Your task to perform on an android device: find which apps use the phone's location Image 0: 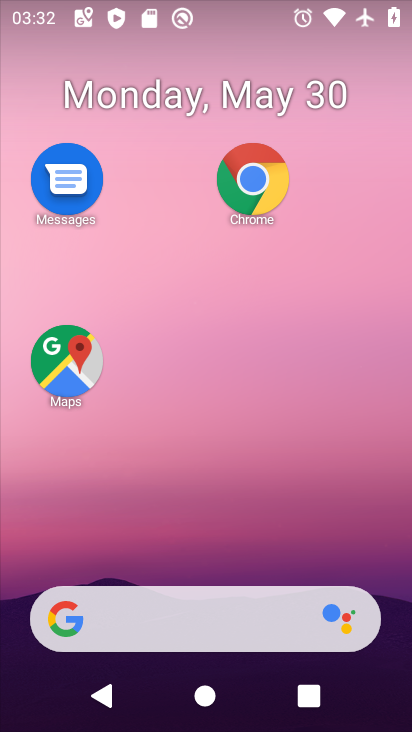
Step 0: drag from (205, 560) to (205, 111)
Your task to perform on an android device: find which apps use the phone's location Image 1: 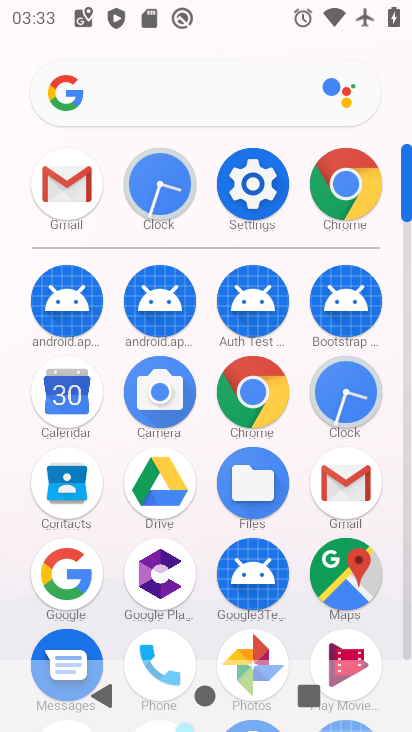
Step 1: drag from (114, 583) to (114, 381)
Your task to perform on an android device: find which apps use the phone's location Image 2: 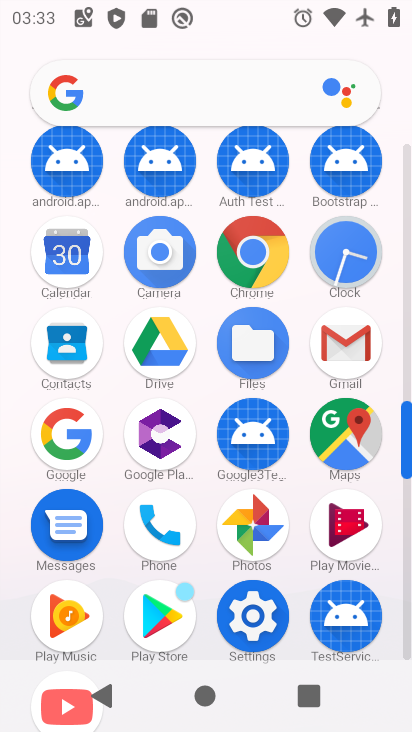
Step 2: click (242, 593)
Your task to perform on an android device: find which apps use the phone's location Image 3: 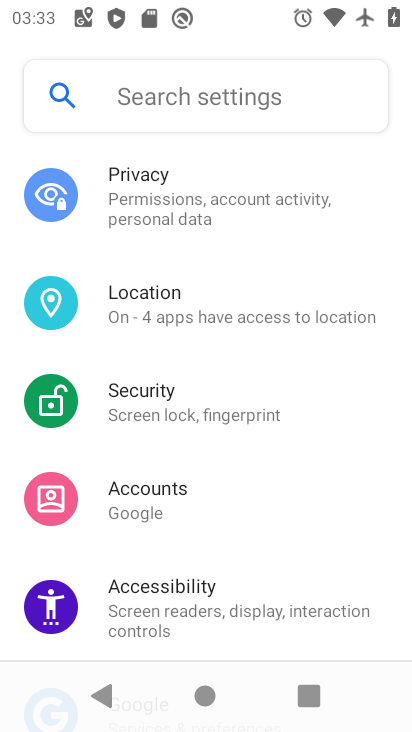
Step 3: drag from (205, 598) to (207, 277)
Your task to perform on an android device: find which apps use the phone's location Image 4: 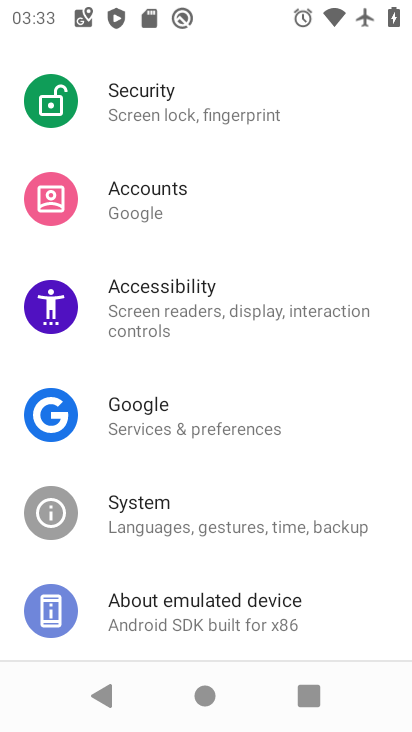
Step 4: drag from (252, 140) to (181, 542)
Your task to perform on an android device: find which apps use the phone's location Image 5: 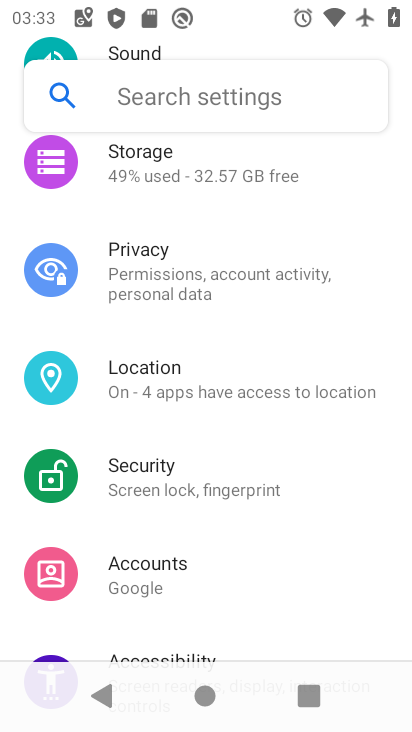
Step 5: drag from (173, 202) to (172, 531)
Your task to perform on an android device: find which apps use the phone's location Image 6: 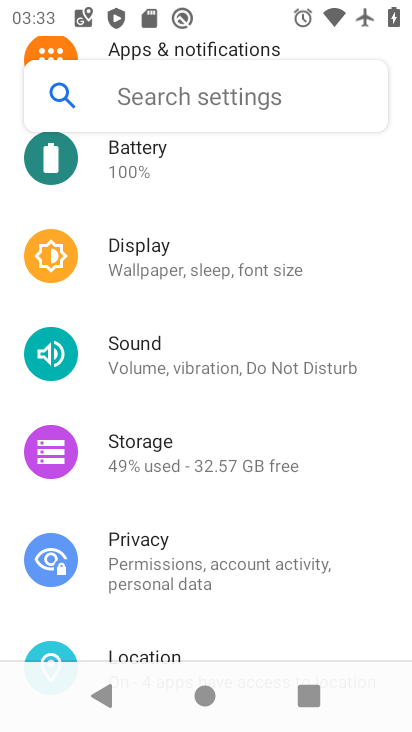
Step 6: drag from (193, 197) to (202, 540)
Your task to perform on an android device: find which apps use the phone's location Image 7: 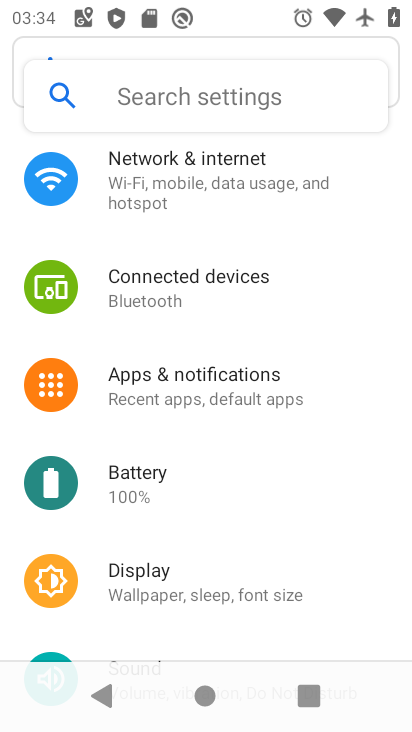
Step 7: drag from (177, 303) to (176, 613)
Your task to perform on an android device: find which apps use the phone's location Image 8: 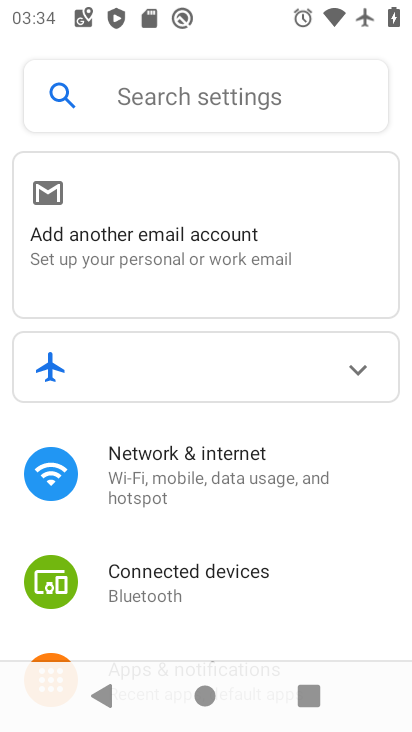
Step 8: drag from (173, 615) to (174, 82)
Your task to perform on an android device: find which apps use the phone's location Image 9: 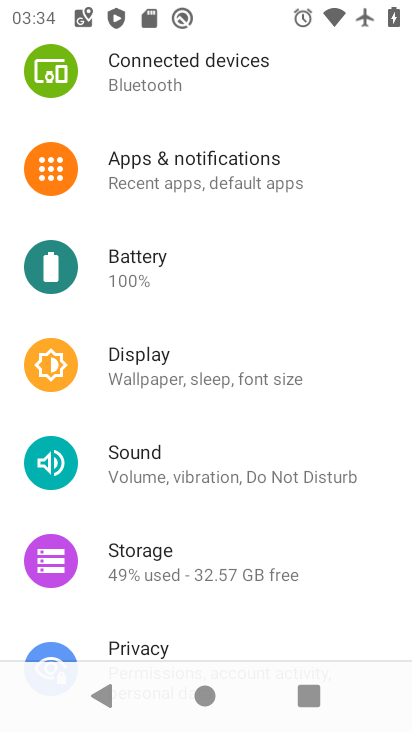
Step 9: drag from (164, 549) to (171, 145)
Your task to perform on an android device: find which apps use the phone's location Image 10: 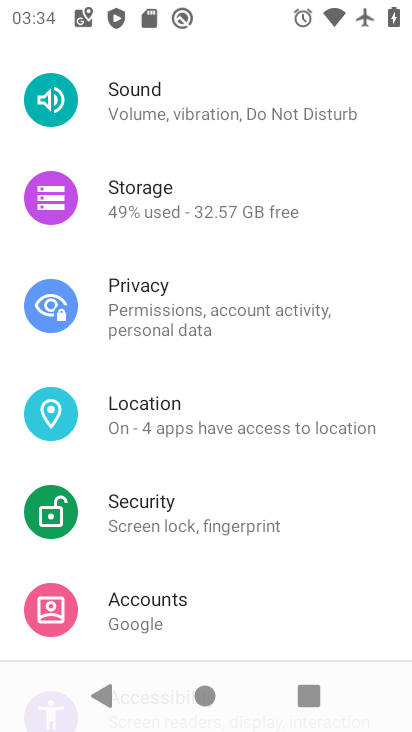
Step 10: click (205, 439)
Your task to perform on an android device: find which apps use the phone's location Image 11: 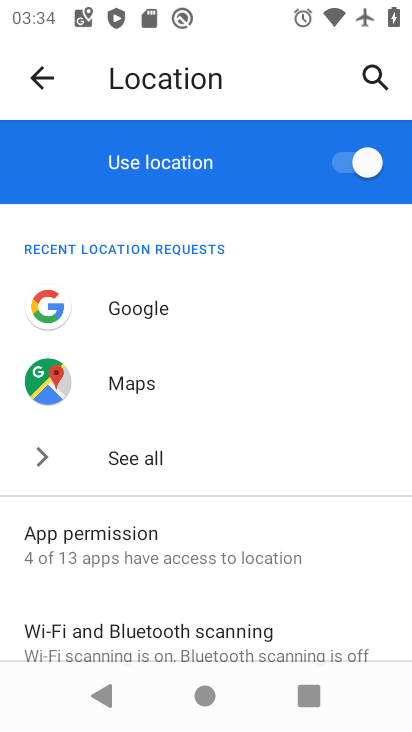
Step 11: click (126, 544)
Your task to perform on an android device: find which apps use the phone's location Image 12: 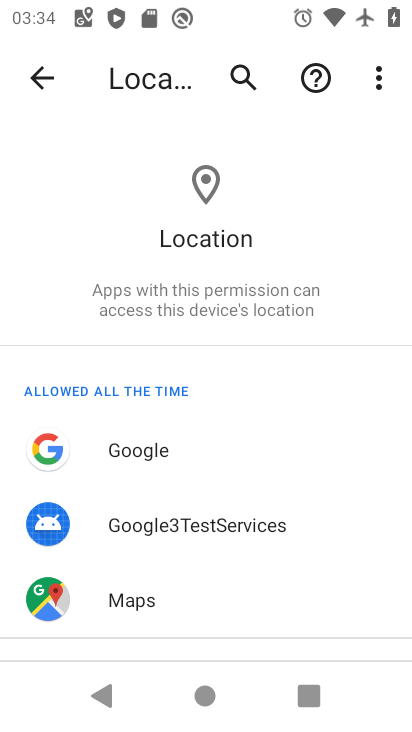
Step 12: task complete